Your task to perform on an android device: change your default location settings in chrome Image 0: 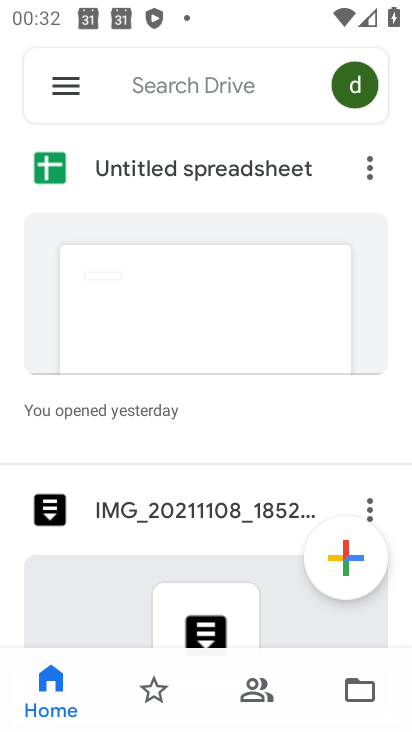
Step 0: press home button
Your task to perform on an android device: change your default location settings in chrome Image 1: 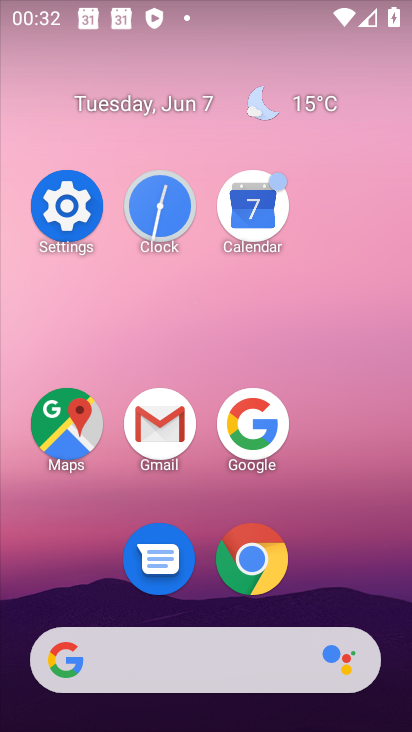
Step 1: click (256, 566)
Your task to perform on an android device: change your default location settings in chrome Image 2: 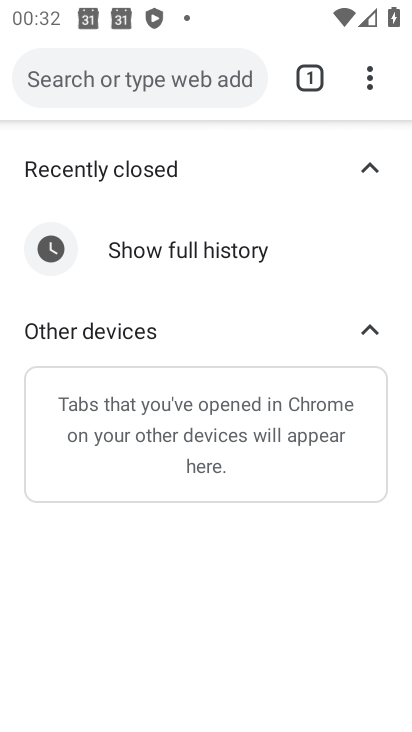
Step 2: click (390, 79)
Your task to perform on an android device: change your default location settings in chrome Image 3: 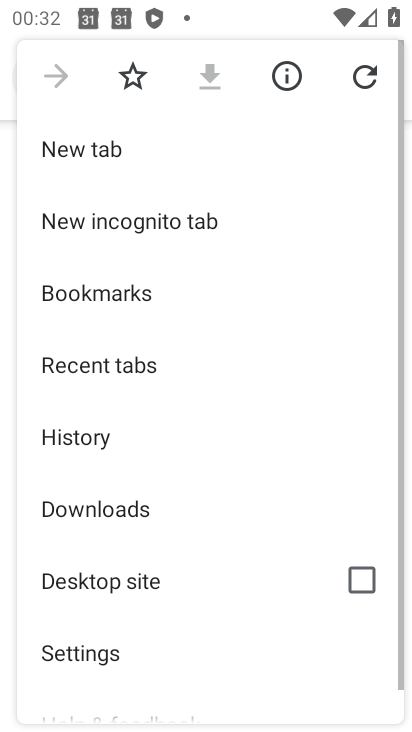
Step 3: drag from (220, 556) to (225, 181)
Your task to perform on an android device: change your default location settings in chrome Image 4: 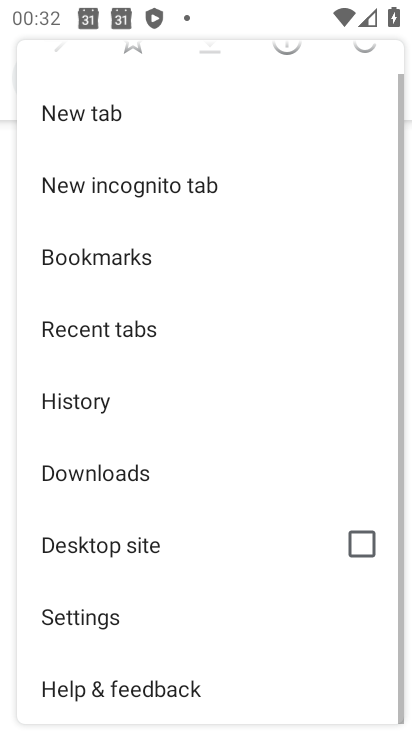
Step 4: click (153, 606)
Your task to perform on an android device: change your default location settings in chrome Image 5: 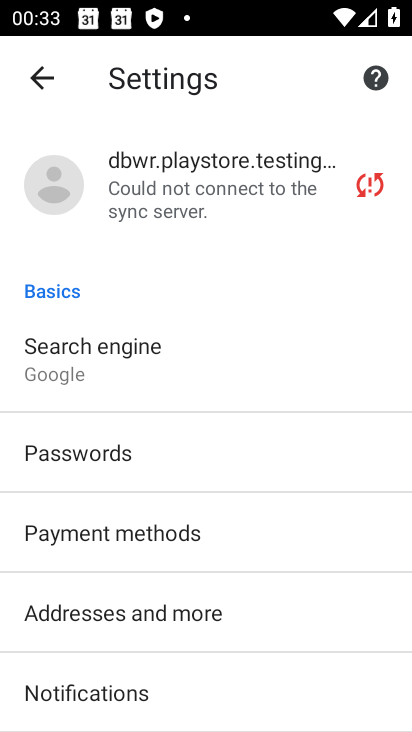
Step 5: drag from (152, 606) to (161, 332)
Your task to perform on an android device: change your default location settings in chrome Image 6: 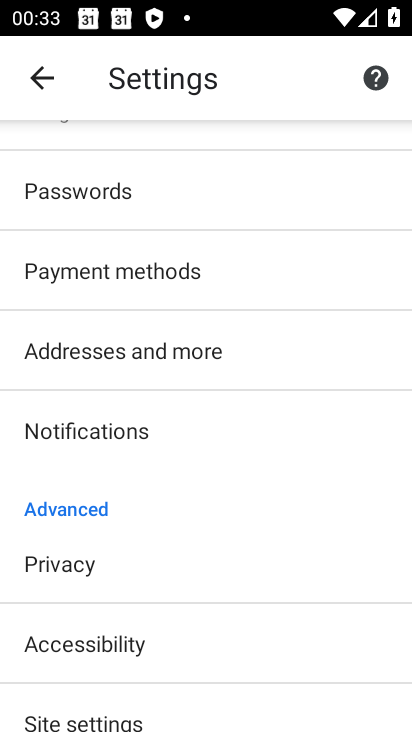
Step 6: drag from (184, 550) to (199, 229)
Your task to perform on an android device: change your default location settings in chrome Image 7: 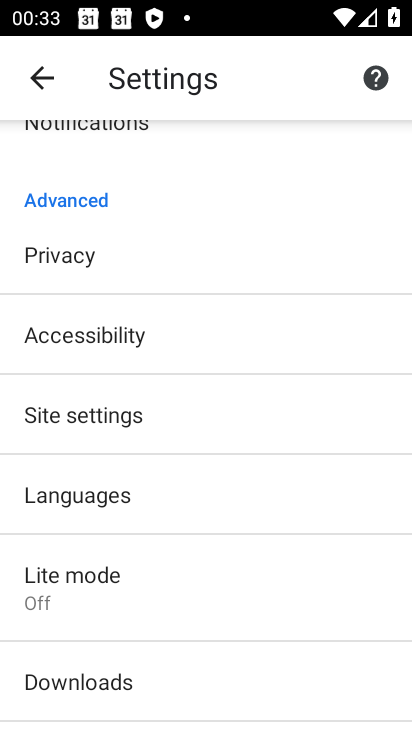
Step 7: click (172, 411)
Your task to perform on an android device: change your default location settings in chrome Image 8: 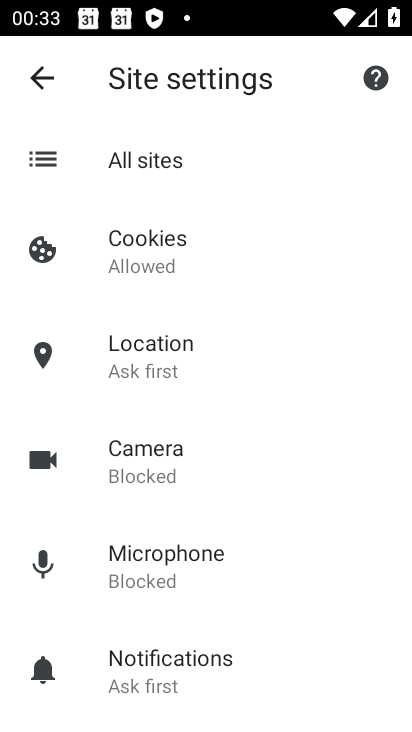
Step 8: drag from (261, 566) to (223, 282)
Your task to perform on an android device: change your default location settings in chrome Image 9: 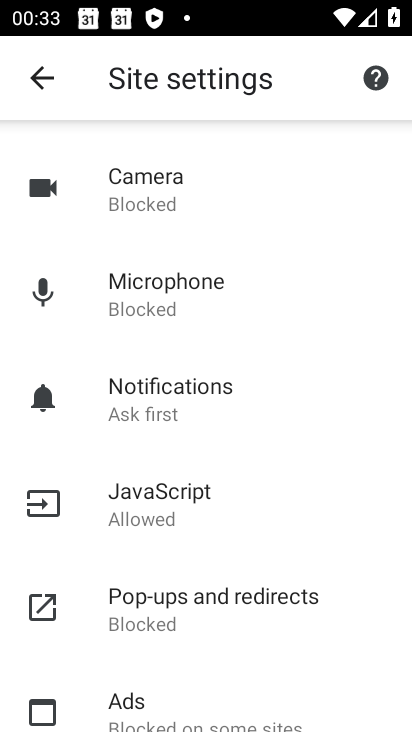
Step 9: drag from (211, 557) to (240, 278)
Your task to perform on an android device: change your default location settings in chrome Image 10: 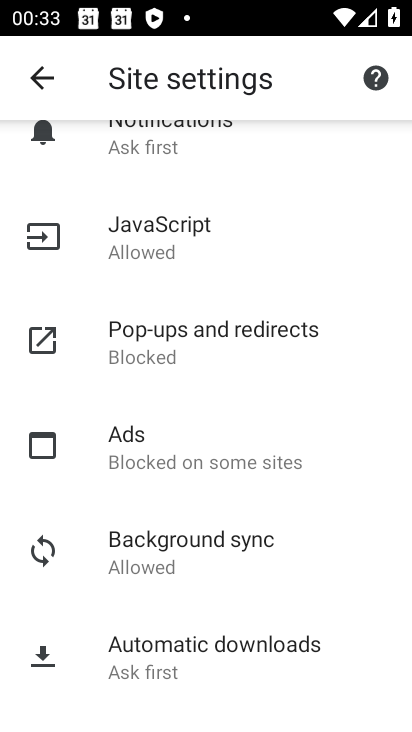
Step 10: drag from (188, 568) to (174, 286)
Your task to perform on an android device: change your default location settings in chrome Image 11: 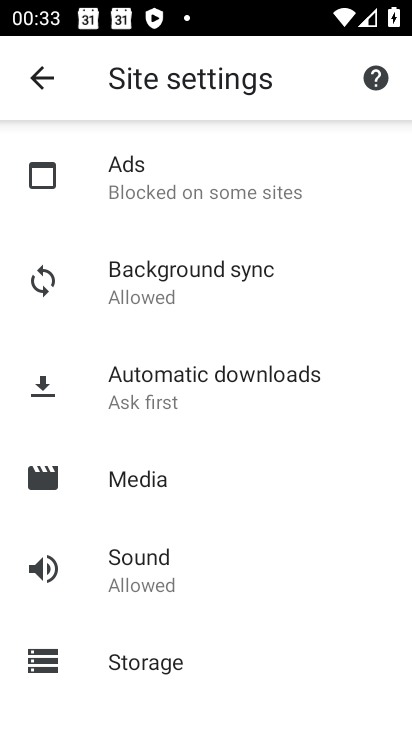
Step 11: drag from (215, 572) to (197, 281)
Your task to perform on an android device: change your default location settings in chrome Image 12: 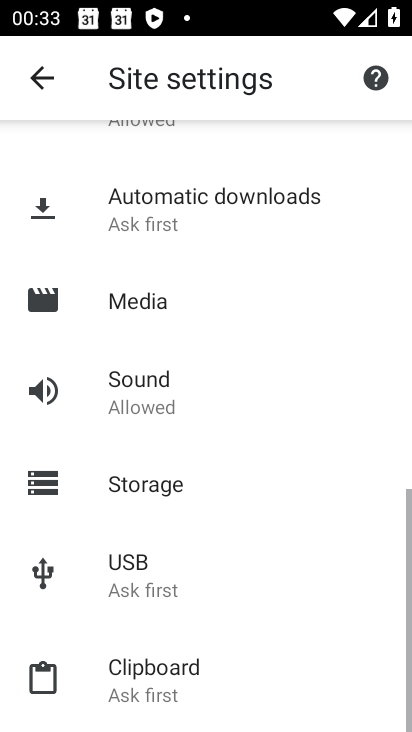
Step 12: drag from (224, 524) to (267, 257)
Your task to perform on an android device: change your default location settings in chrome Image 13: 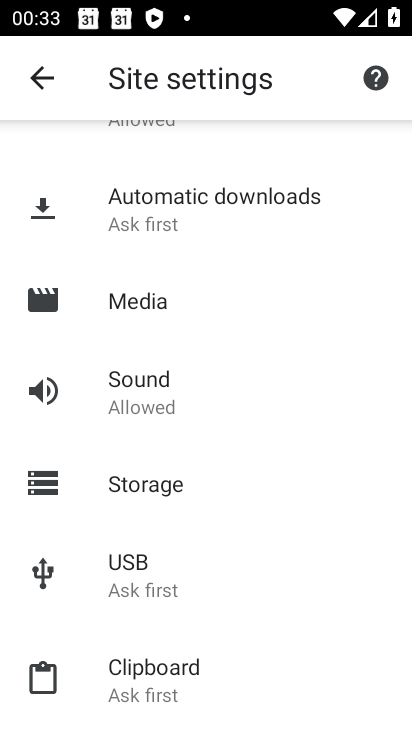
Step 13: drag from (276, 229) to (292, 577)
Your task to perform on an android device: change your default location settings in chrome Image 14: 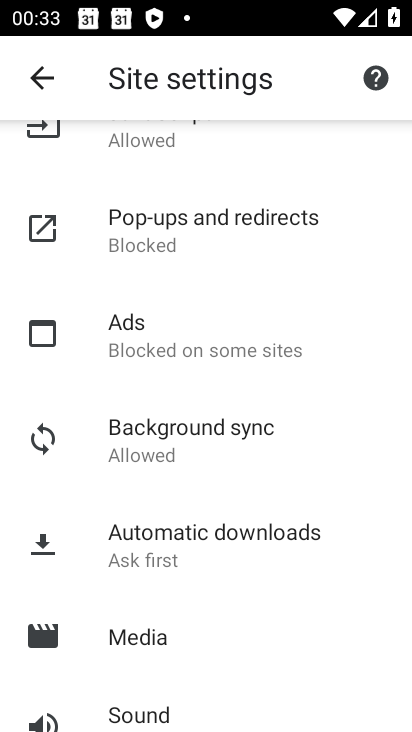
Step 14: drag from (232, 251) to (237, 644)
Your task to perform on an android device: change your default location settings in chrome Image 15: 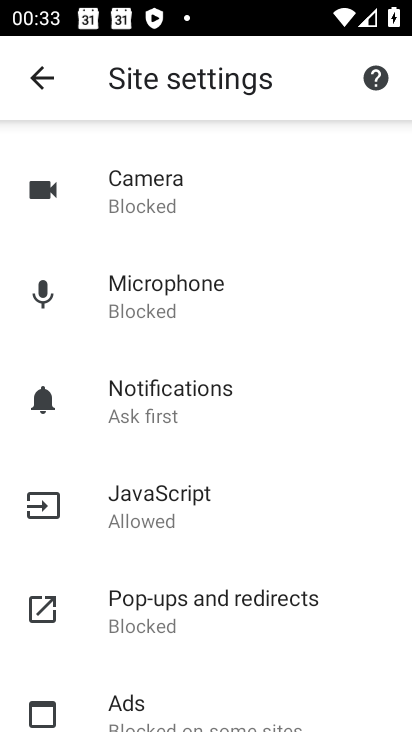
Step 15: drag from (243, 278) to (260, 570)
Your task to perform on an android device: change your default location settings in chrome Image 16: 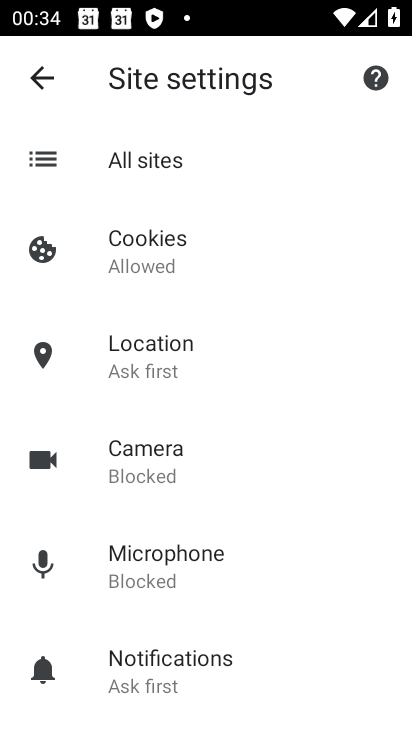
Step 16: click (242, 341)
Your task to perform on an android device: change your default location settings in chrome Image 17: 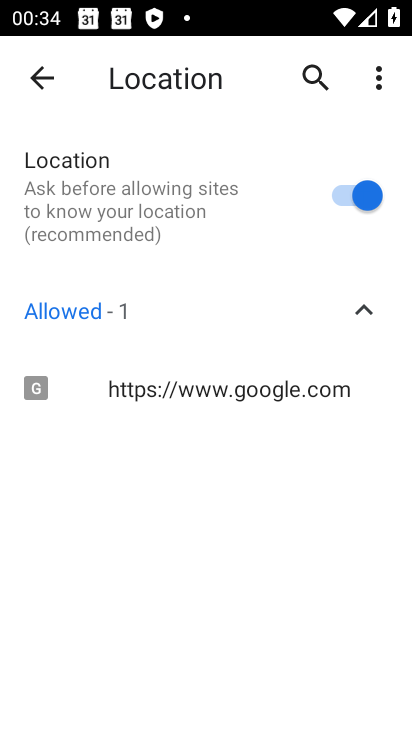
Step 17: click (329, 191)
Your task to perform on an android device: change your default location settings in chrome Image 18: 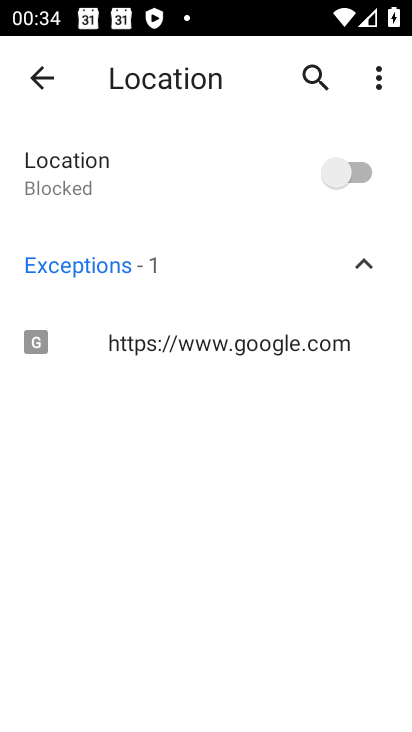
Step 18: task complete